Your task to perform on an android device: check google app version Image 0: 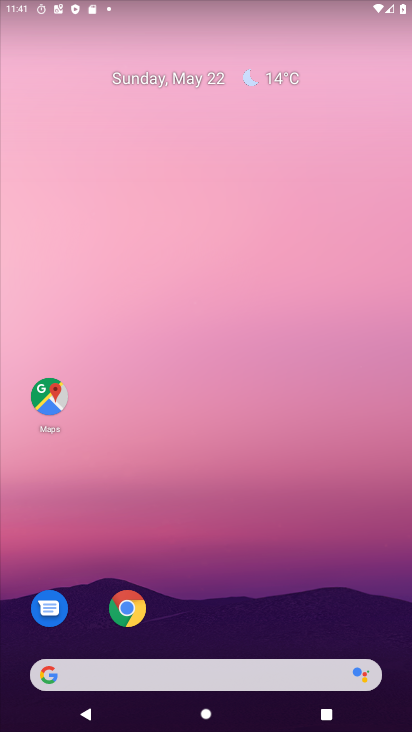
Step 0: drag from (227, 708) to (227, 136)
Your task to perform on an android device: check google app version Image 1: 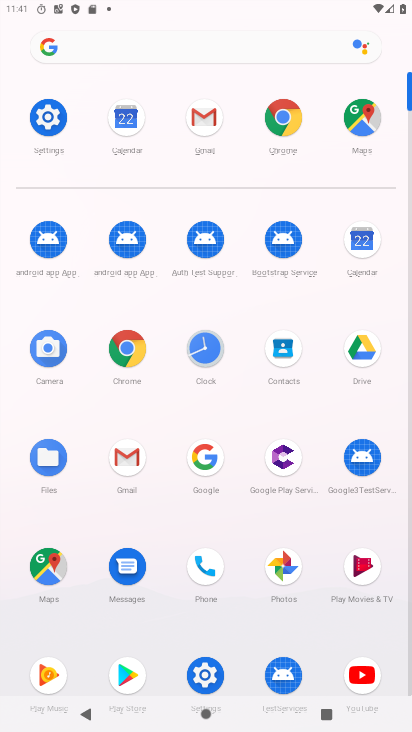
Step 1: click (205, 462)
Your task to perform on an android device: check google app version Image 2: 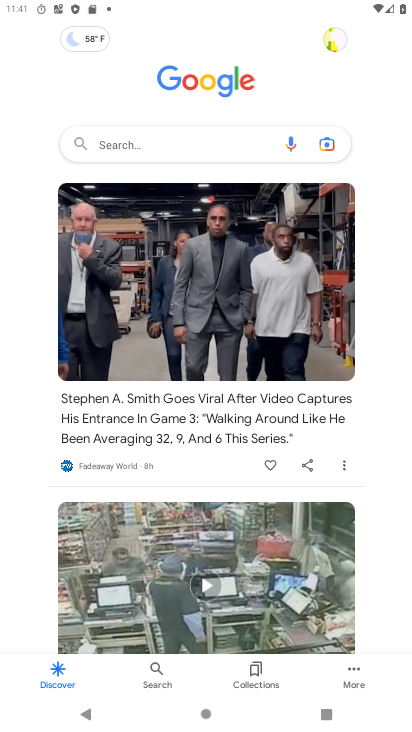
Step 2: click (357, 667)
Your task to perform on an android device: check google app version Image 3: 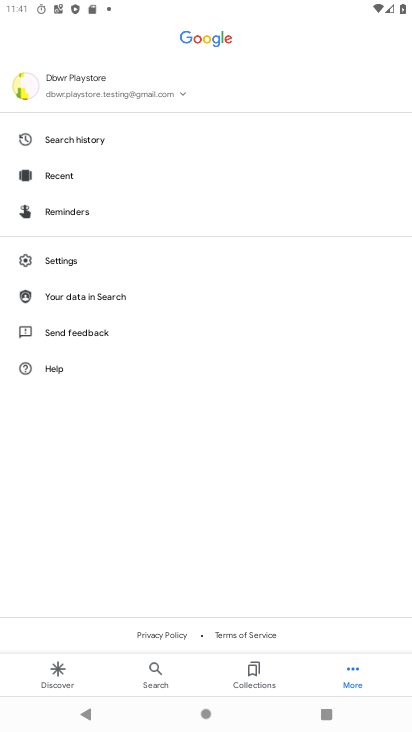
Step 3: click (58, 256)
Your task to perform on an android device: check google app version Image 4: 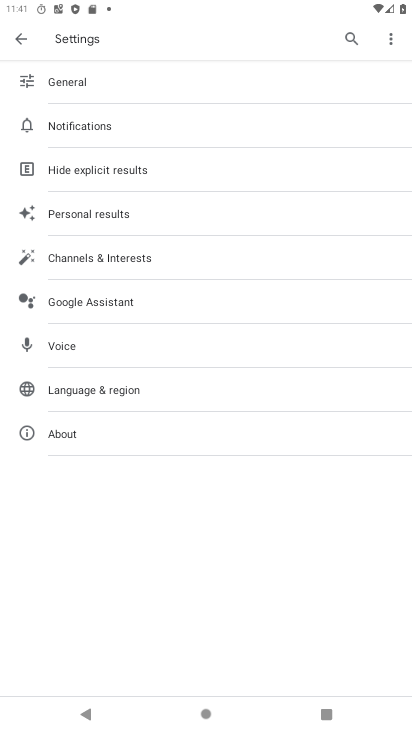
Step 4: click (49, 429)
Your task to perform on an android device: check google app version Image 5: 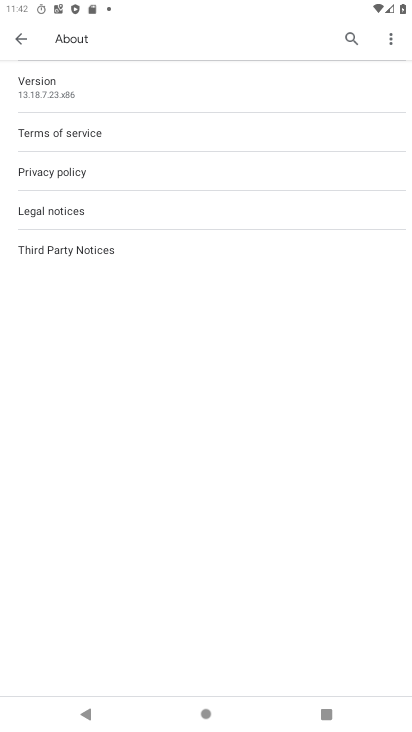
Step 5: task complete